Your task to perform on an android device: Show me productivity apps on the Play Store Image 0: 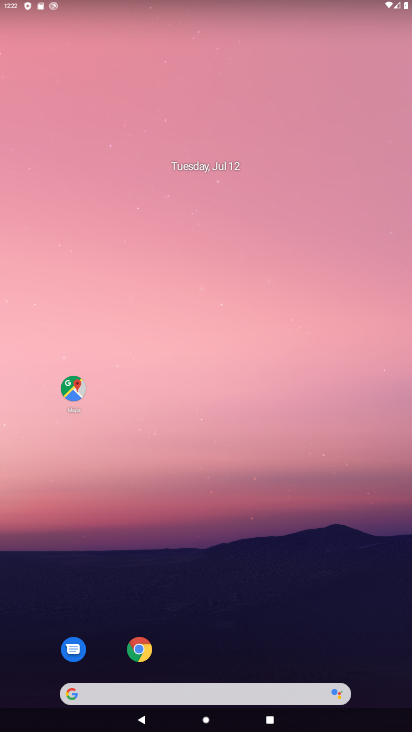
Step 0: drag from (272, 646) to (204, 16)
Your task to perform on an android device: Show me productivity apps on the Play Store Image 1: 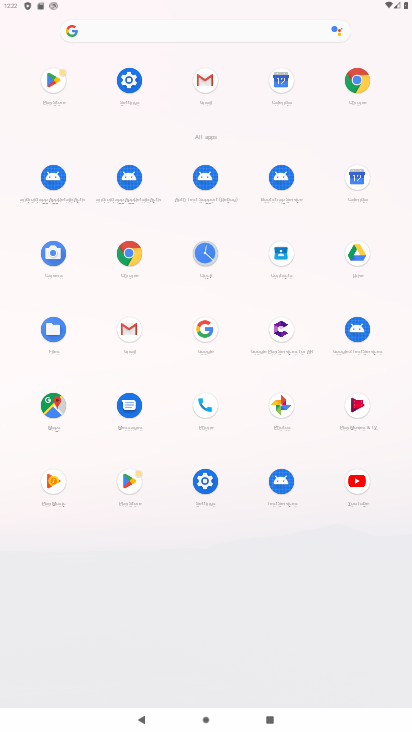
Step 1: click (46, 94)
Your task to perform on an android device: Show me productivity apps on the Play Store Image 2: 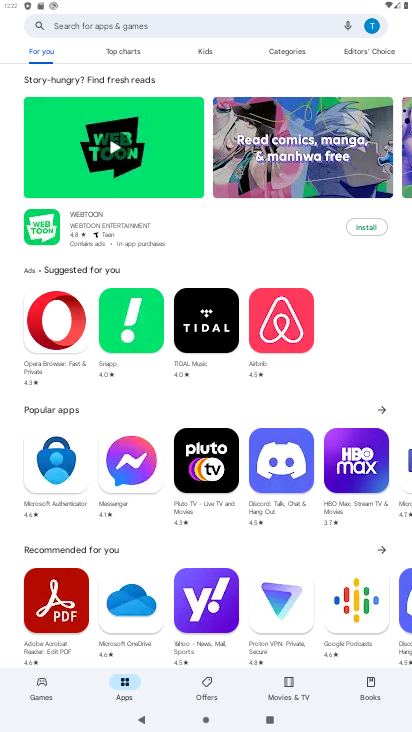
Step 2: click (117, 48)
Your task to perform on an android device: Show me productivity apps on the Play Store Image 3: 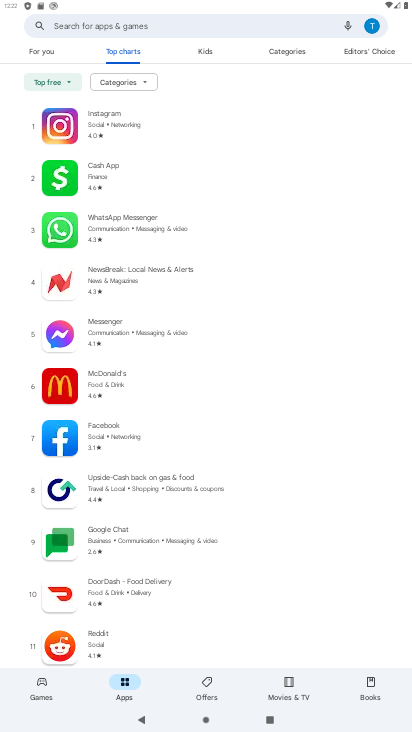
Step 3: click (139, 90)
Your task to perform on an android device: Show me productivity apps on the Play Store Image 4: 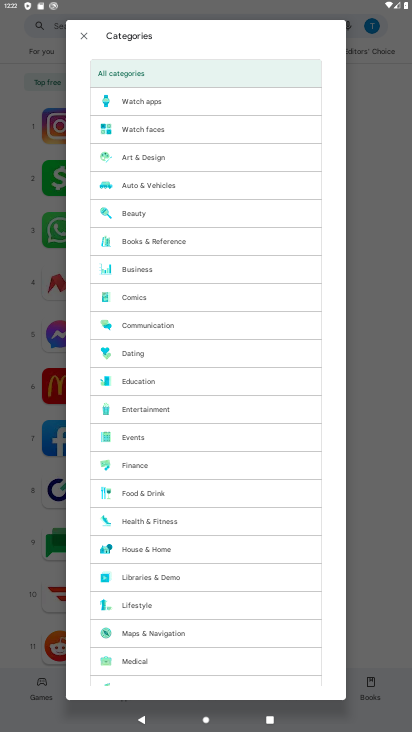
Step 4: drag from (167, 611) to (148, 213)
Your task to perform on an android device: Show me productivity apps on the Play Store Image 5: 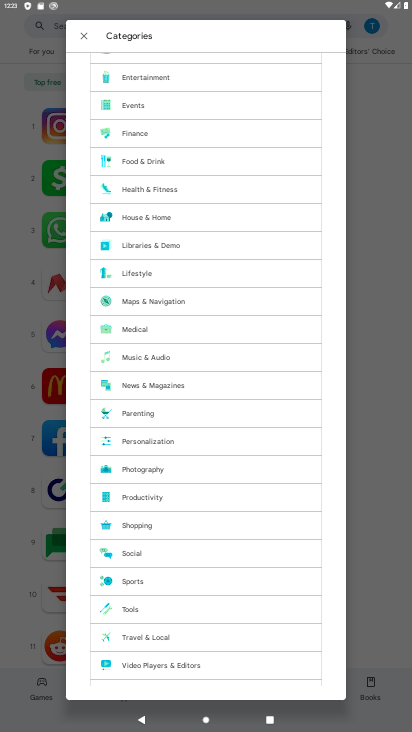
Step 5: drag from (180, 602) to (142, 313)
Your task to perform on an android device: Show me productivity apps on the Play Store Image 6: 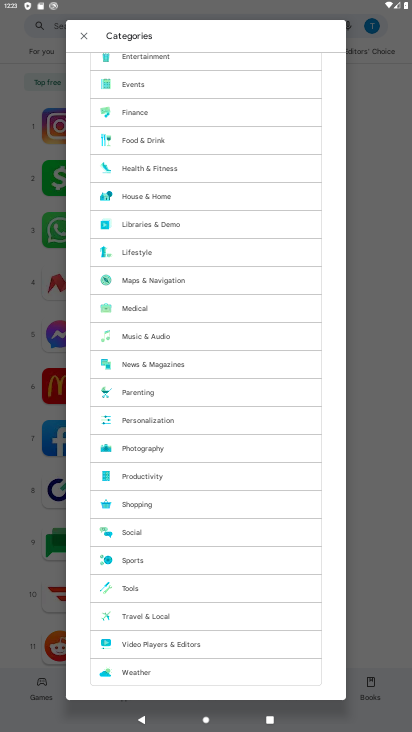
Step 6: drag from (157, 647) to (161, 436)
Your task to perform on an android device: Show me productivity apps on the Play Store Image 7: 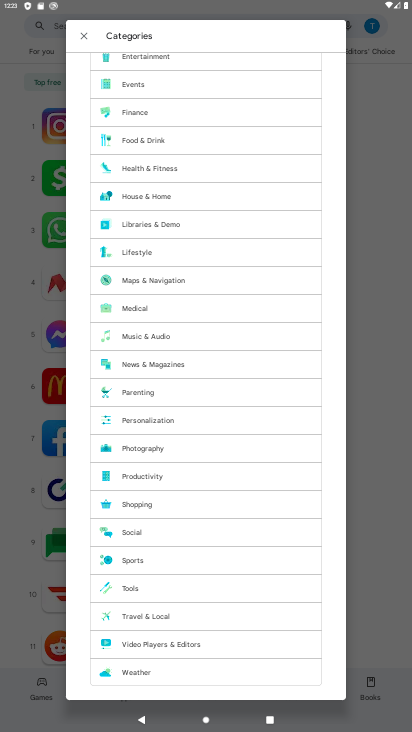
Step 7: click (181, 476)
Your task to perform on an android device: Show me productivity apps on the Play Store Image 8: 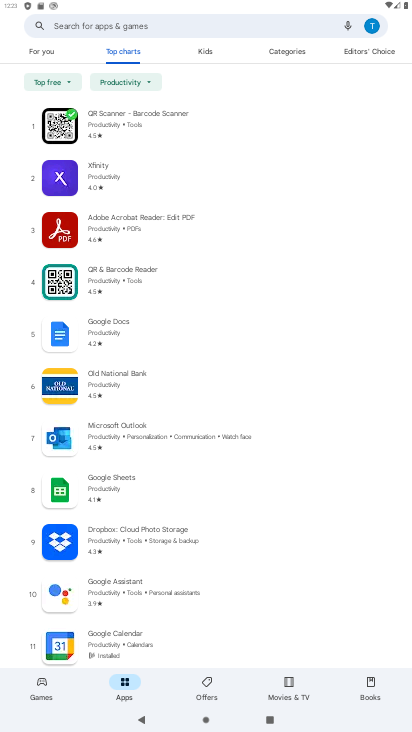
Step 8: task complete